Your task to perform on an android device: Open network settings Image 0: 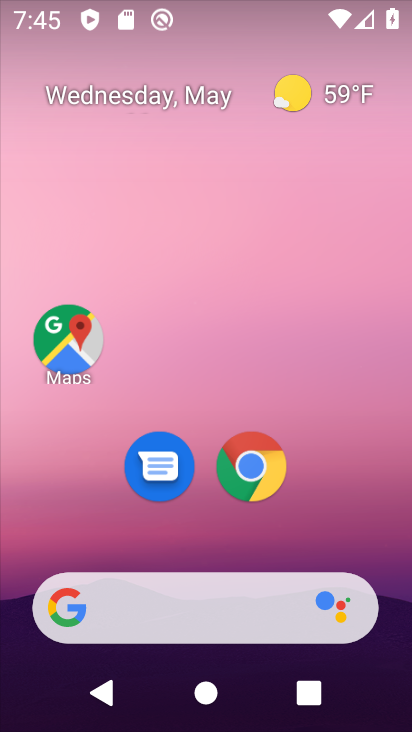
Step 0: drag from (322, 516) to (340, 190)
Your task to perform on an android device: Open network settings Image 1: 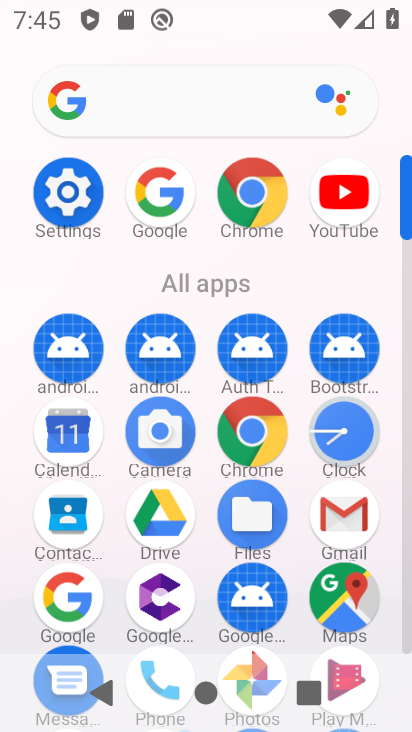
Step 1: click (64, 208)
Your task to perform on an android device: Open network settings Image 2: 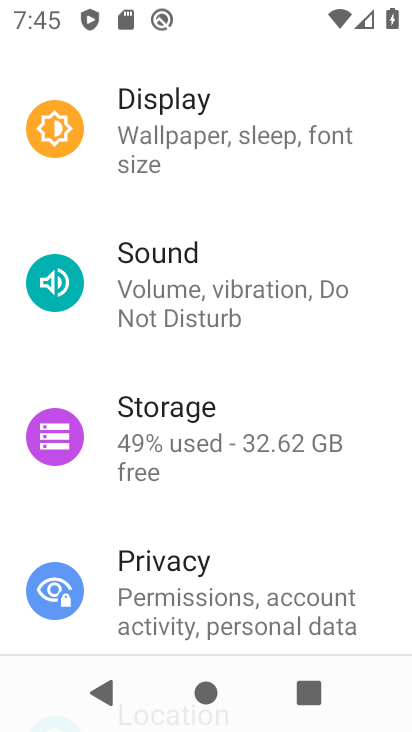
Step 2: drag from (187, 148) to (178, 622)
Your task to perform on an android device: Open network settings Image 3: 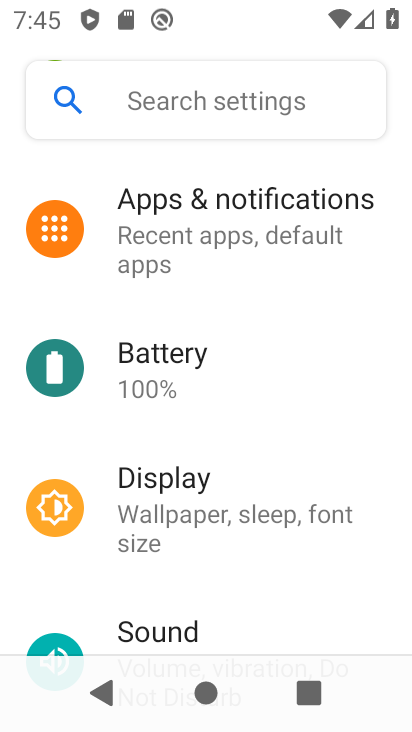
Step 3: drag from (191, 220) to (225, 608)
Your task to perform on an android device: Open network settings Image 4: 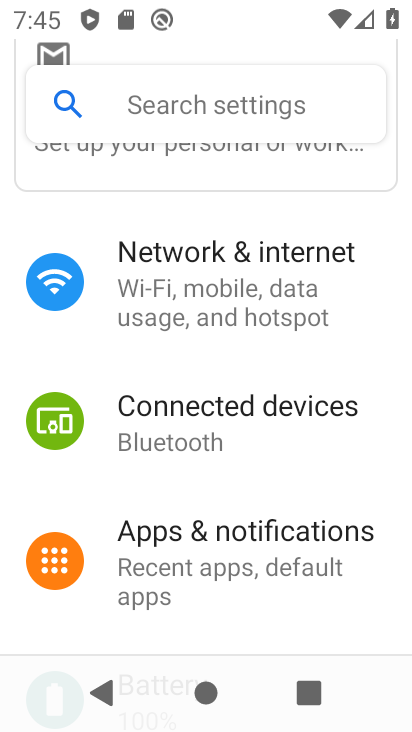
Step 4: click (220, 261)
Your task to perform on an android device: Open network settings Image 5: 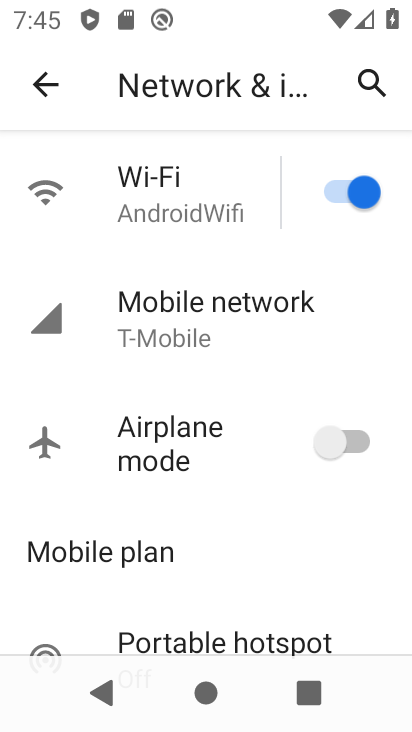
Step 5: task complete